Your task to perform on an android device: See recent photos Image 0: 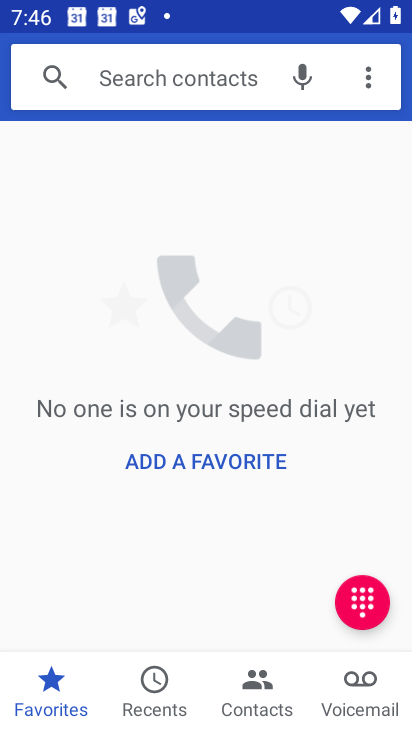
Step 0: press home button
Your task to perform on an android device: See recent photos Image 1: 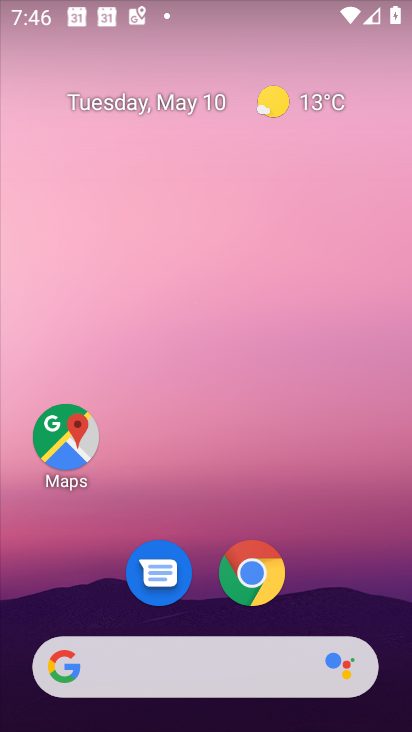
Step 1: drag from (379, 632) to (394, 451)
Your task to perform on an android device: See recent photos Image 2: 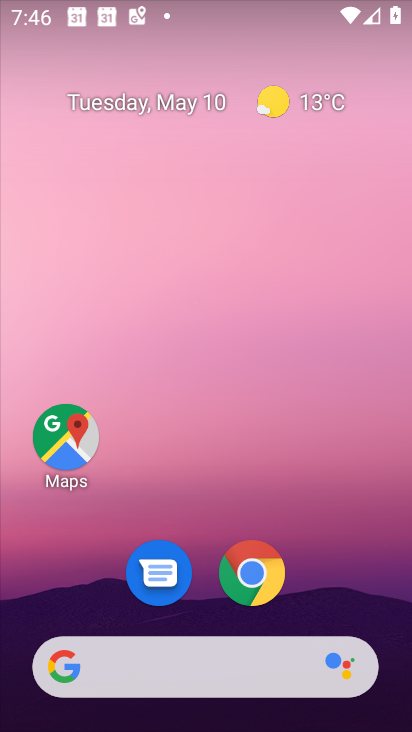
Step 2: drag from (356, 599) to (333, 14)
Your task to perform on an android device: See recent photos Image 3: 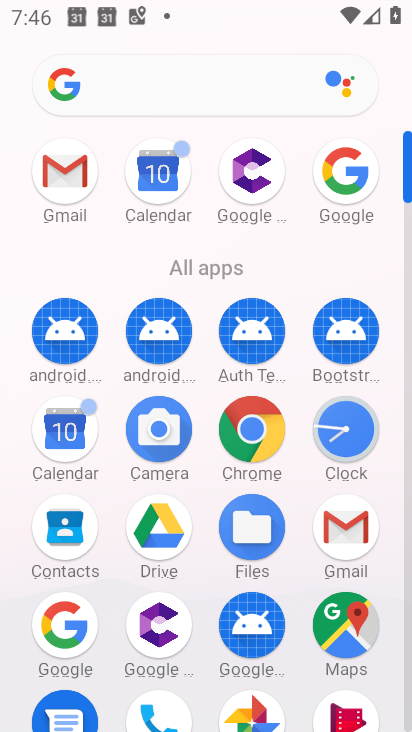
Step 3: click (242, 712)
Your task to perform on an android device: See recent photos Image 4: 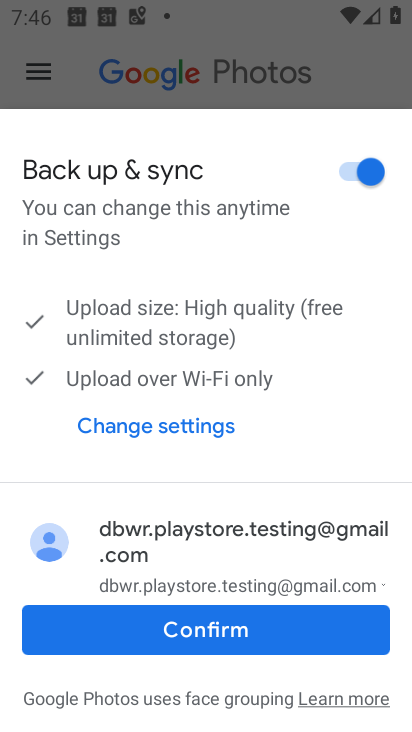
Step 4: click (202, 649)
Your task to perform on an android device: See recent photos Image 5: 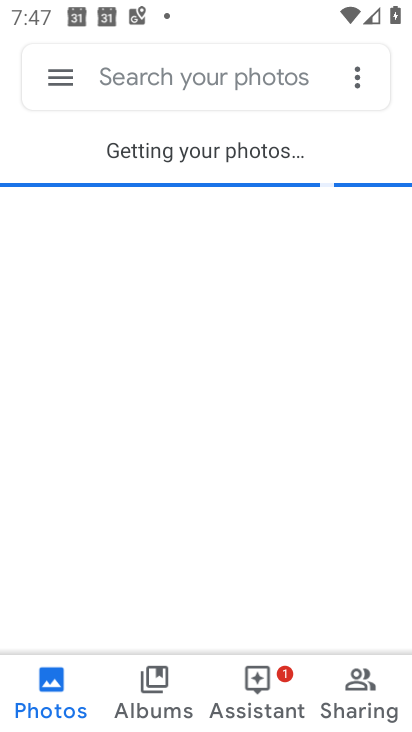
Step 5: click (61, 80)
Your task to perform on an android device: See recent photos Image 6: 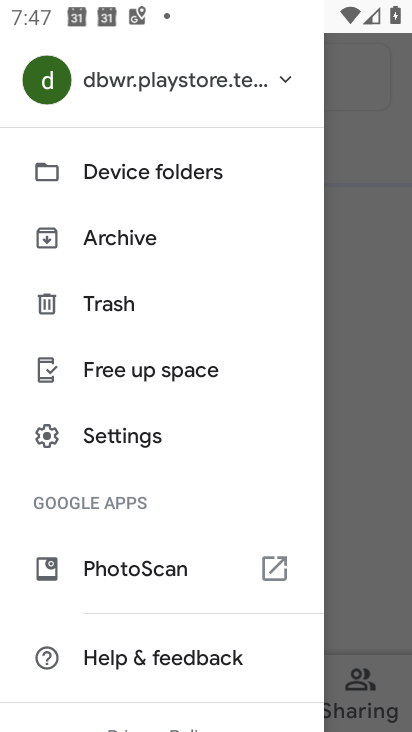
Step 6: click (96, 242)
Your task to perform on an android device: See recent photos Image 7: 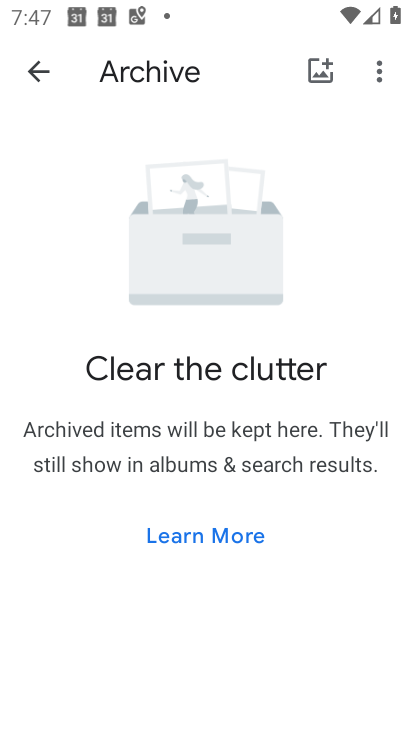
Step 7: click (25, 76)
Your task to perform on an android device: See recent photos Image 8: 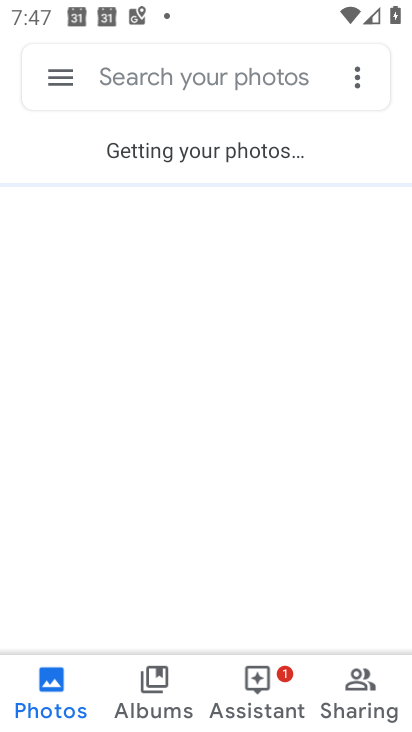
Step 8: task complete